Your task to perform on an android device: Go to Yahoo.com Image 0: 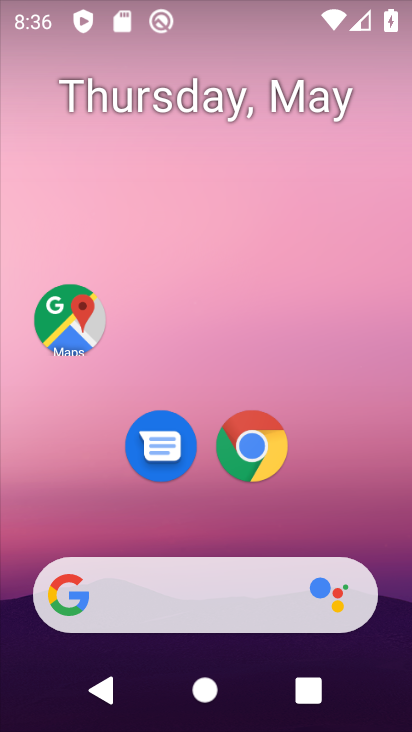
Step 0: click (255, 445)
Your task to perform on an android device: Go to Yahoo.com Image 1: 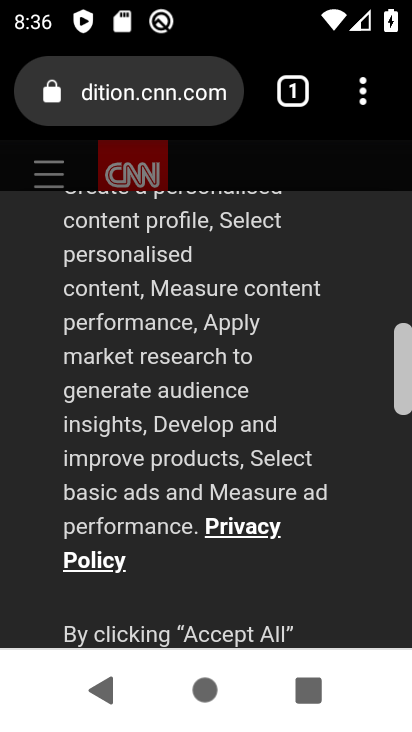
Step 1: click (126, 83)
Your task to perform on an android device: Go to Yahoo.com Image 2: 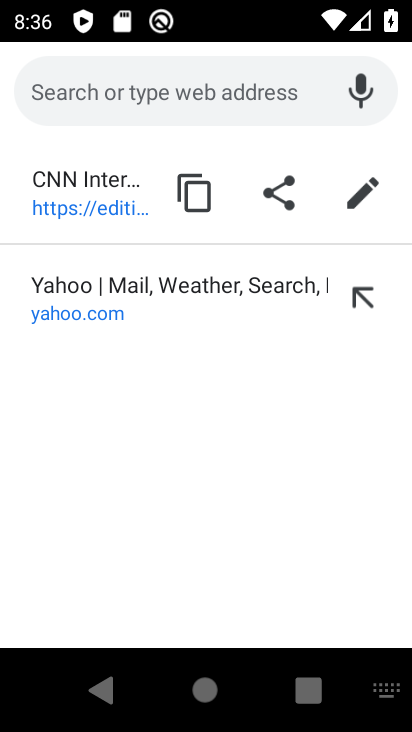
Step 2: type "yahoo.com"
Your task to perform on an android device: Go to Yahoo.com Image 3: 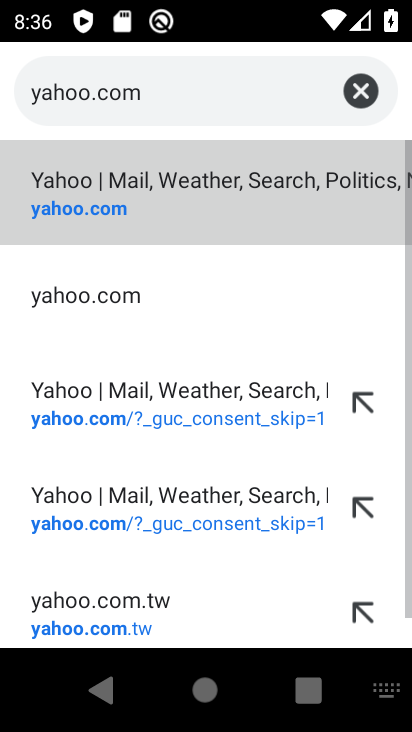
Step 3: click (101, 191)
Your task to perform on an android device: Go to Yahoo.com Image 4: 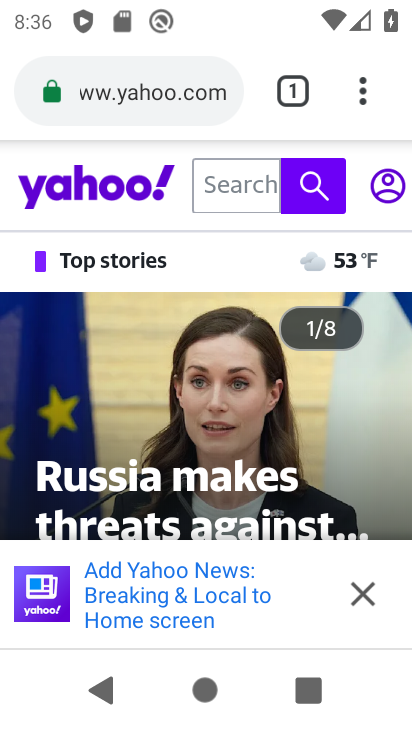
Step 4: task complete